Your task to perform on an android device: Open accessibility settings Image 0: 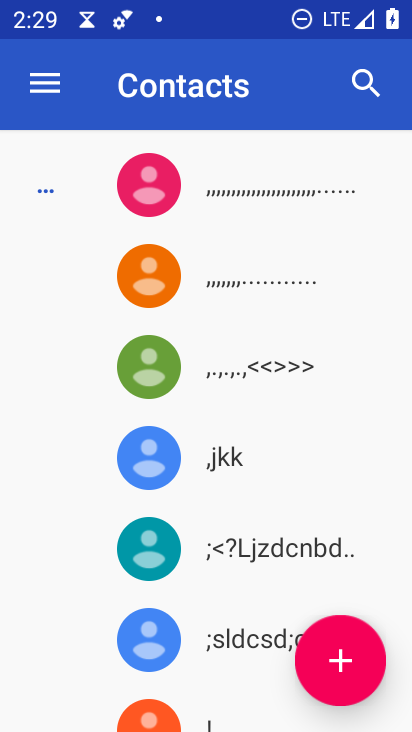
Step 0: press home button
Your task to perform on an android device: Open accessibility settings Image 1: 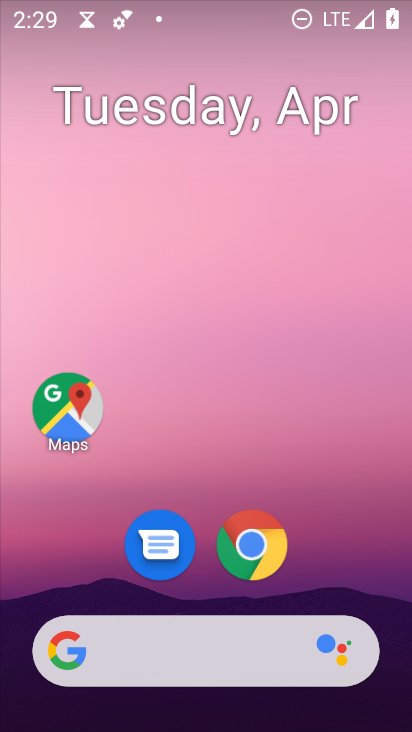
Step 1: drag from (368, 572) to (280, 142)
Your task to perform on an android device: Open accessibility settings Image 2: 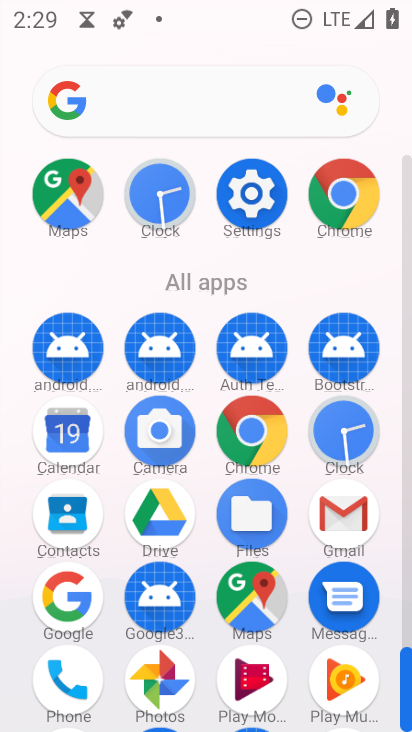
Step 2: click (346, 184)
Your task to perform on an android device: Open accessibility settings Image 3: 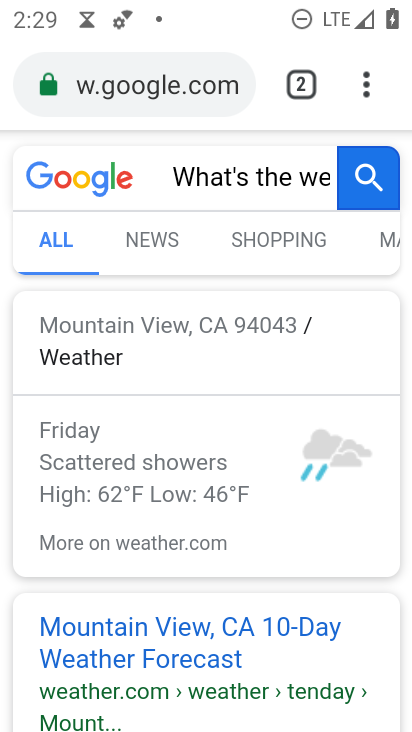
Step 3: click (357, 76)
Your task to perform on an android device: Open accessibility settings Image 4: 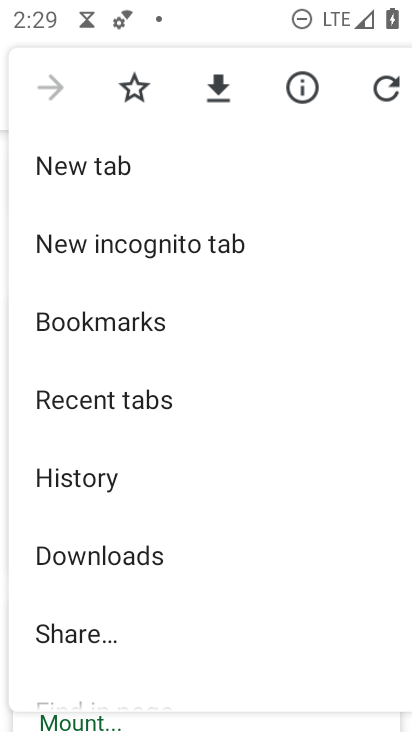
Step 4: drag from (333, 668) to (269, 276)
Your task to perform on an android device: Open accessibility settings Image 5: 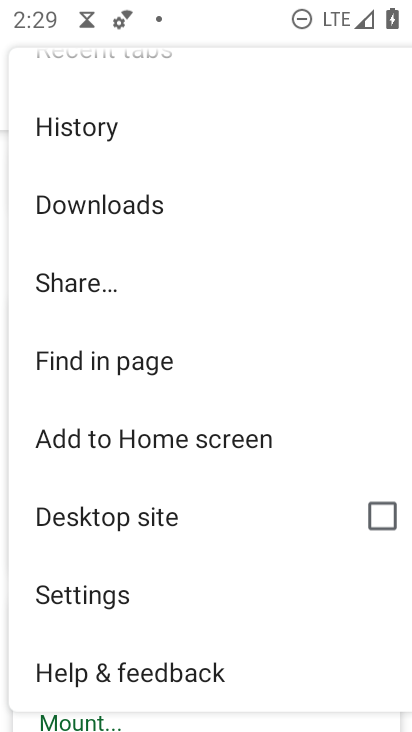
Step 5: click (282, 606)
Your task to perform on an android device: Open accessibility settings Image 6: 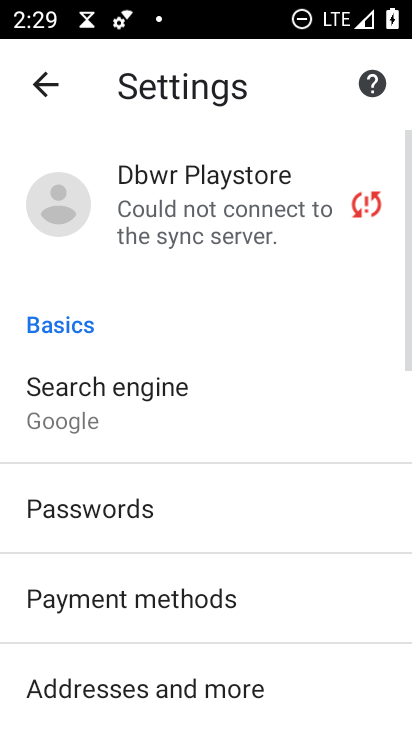
Step 6: drag from (282, 606) to (249, 135)
Your task to perform on an android device: Open accessibility settings Image 7: 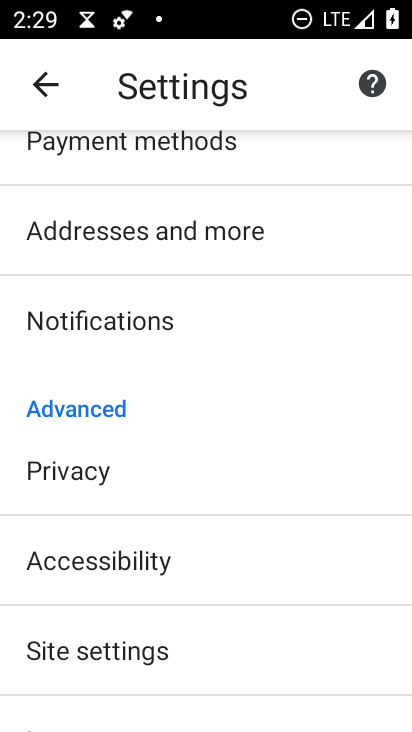
Step 7: click (289, 571)
Your task to perform on an android device: Open accessibility settings Image 8: 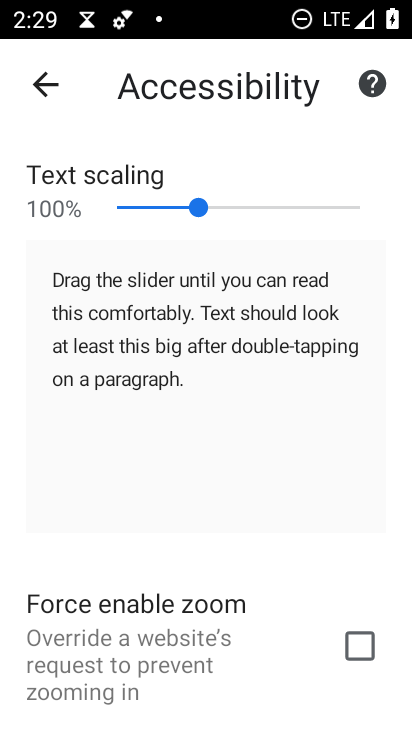
Step 8: task complete